Your task to perform on an android device: snooze an email in the gmail app Image 0: 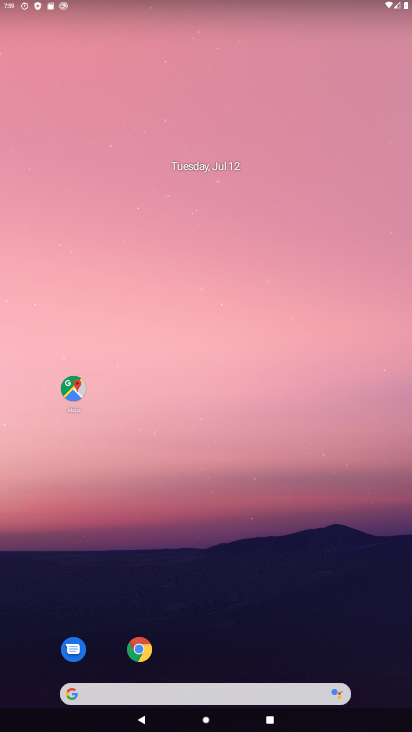
Step 0: drag from (264, 610) to (92, 154)
Your task to perform on an android device: snooze an email in the gmail app Image 1: 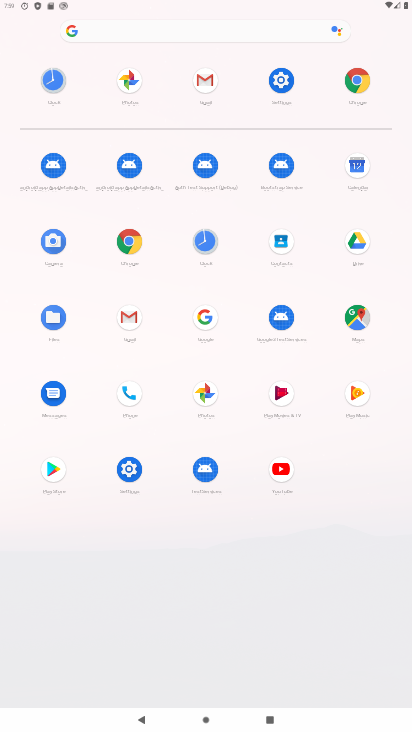
Step 1: click (207, 74)
Your task to perform on an android device: snooze an email in the gmail app Image 2: 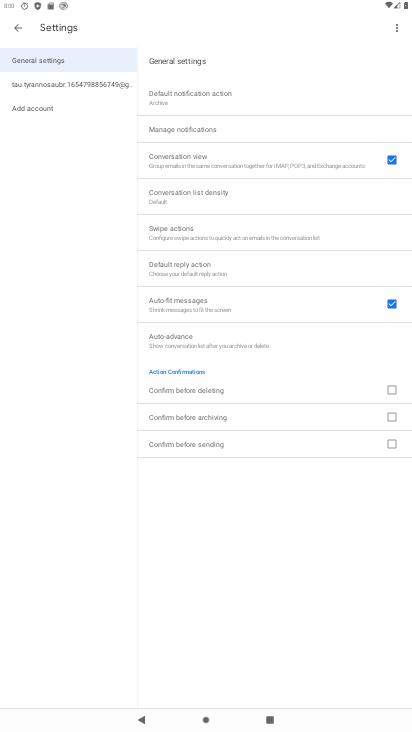
Step 2: click (8, 24)
Your task to perform on an android device: snooze an email in the gmail app Image 3: 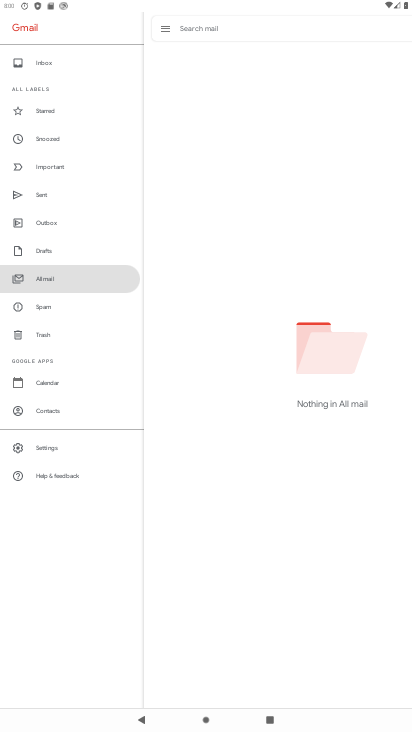
Step 3: task complete